Your task to perform on an android device: toggle javascript in the chrome app Image 0: 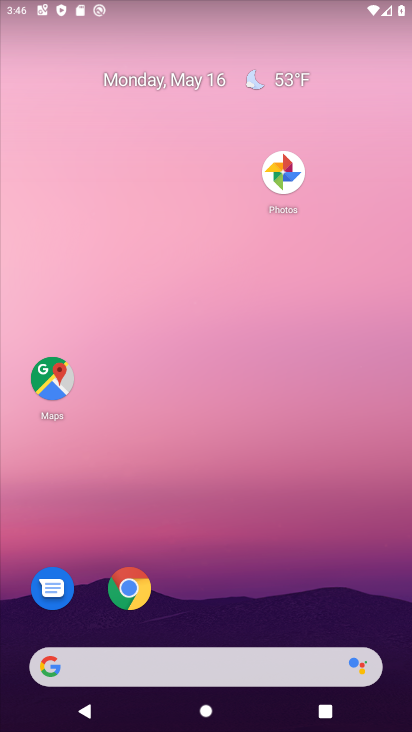
Step 0: click (127, 586)
Your task to perform on an android device: toggle javascript in the chrome app Image 1: 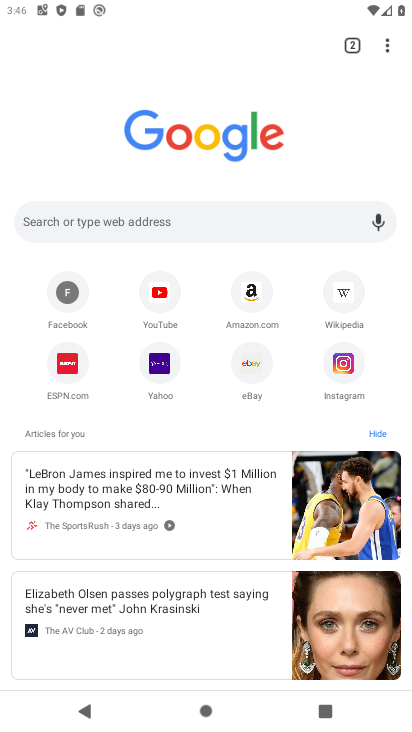
Step 1: click (392, 46)
Your task to perform on an android device: toggle javascript in the chrome app Image 2: 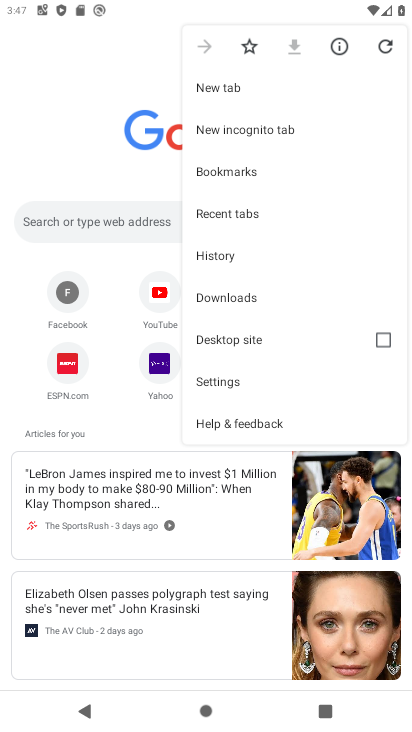
Step 2: click (212, 390)
Your task to perform on an android device: toggle javascript in the chrome app Image 3: 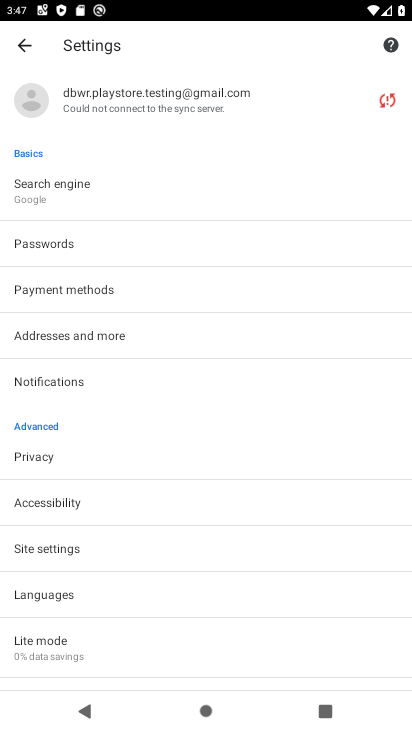
Step 3: click (36, 554)
Your task to perform on an android device: toggle javascript in the chrome app Image 4: 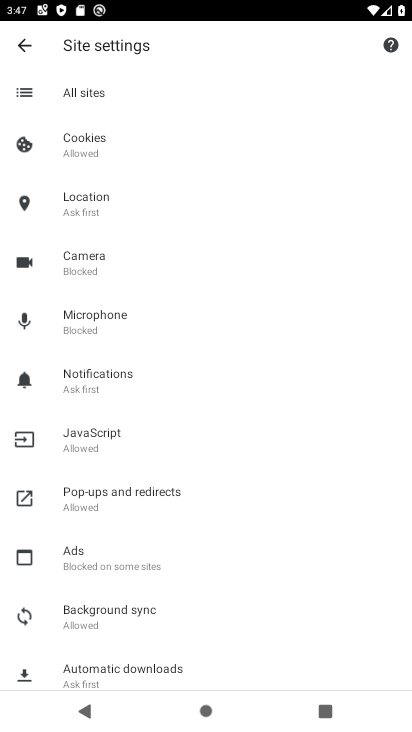
Step 4: click (97, 438)
Your task to perform on an android device: toggle javascript in the chrome app Image 5: 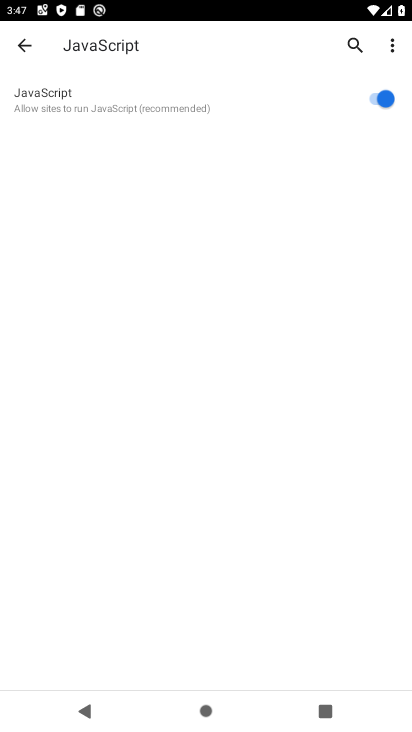
Step 5: click (381, 88)
Your task to perform on an android device: toggle javascript in the chrome app Image 6: 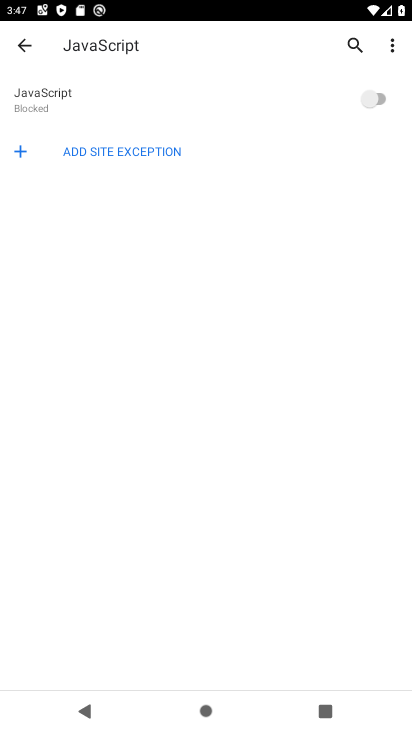
Step 6: click (381, 88)
Your task to perform on an android device: toggle javascript in the chrome app Image 7: 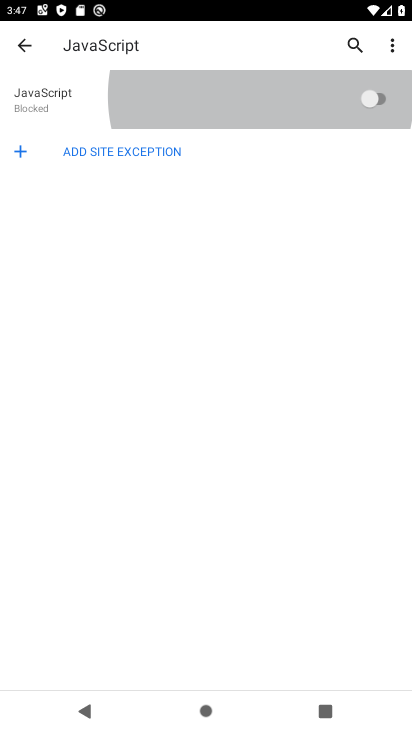
Step 7: click (381, 88)
Your task to perform on an android device: toggle javascript in the chrome app Image 8: 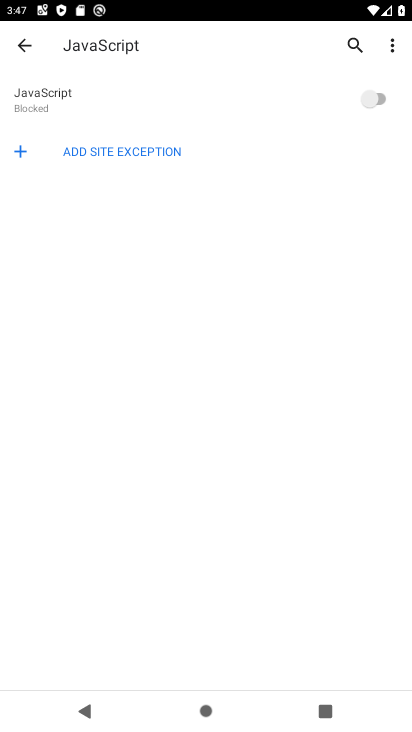
Step 8: click (381, 88)
Your task to perform on an android device: toggle javascript in the chrome app Image 9: 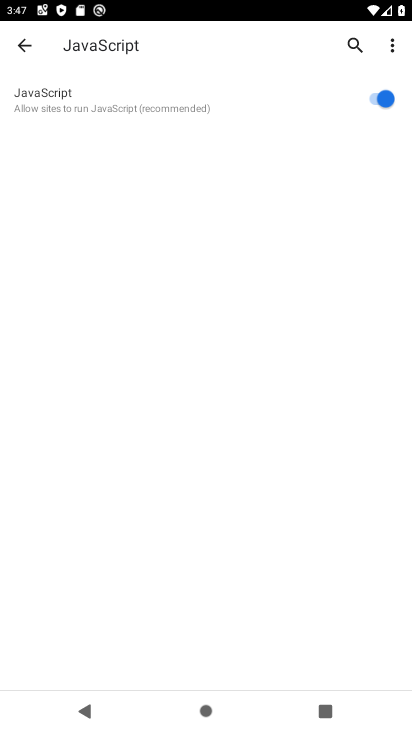
Step 9: task complete